Your task to perform on an android device: toggle data saver in the chrome app Image 0: 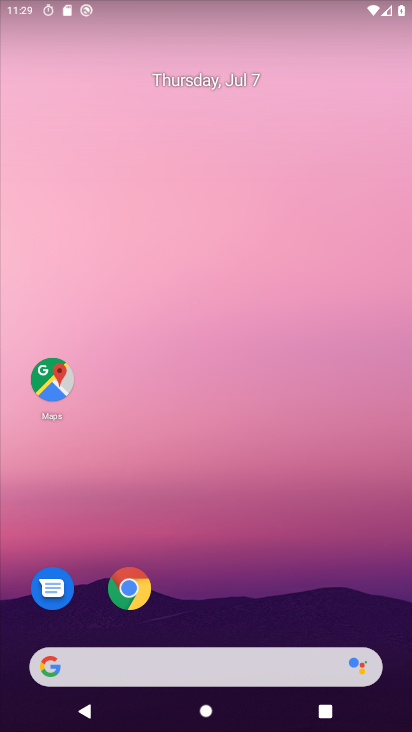
Step 0: click (128, 598)
Your task to perform on an android device: toggle data saver in the chrome app Image 1: 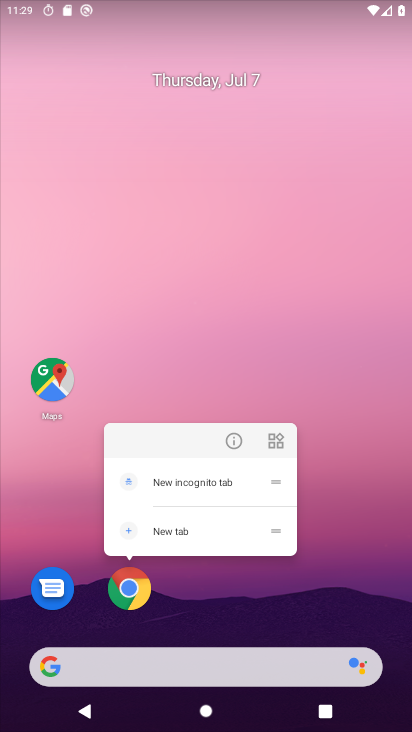
Step 1: click (133, 591)
Your task to perform on an android device: toggle data saver in the chrome app Image 2: 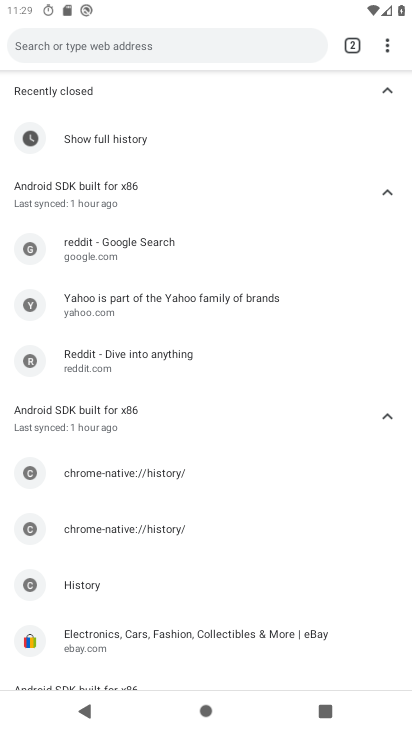
Step 2: drag from (386, 46) to (254, 385)
Your task to perform on an android device: toggle data saver in the chrome app Image 3: 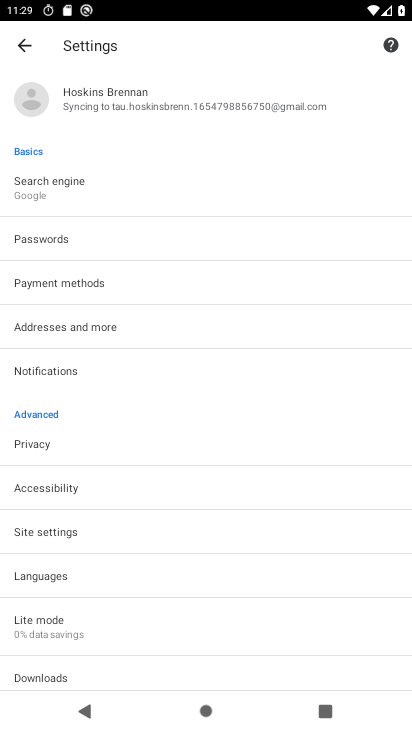
Step 3: click (34, 625)
Your task to perform on an android device: toggle data saver in the chrome app Image 4: 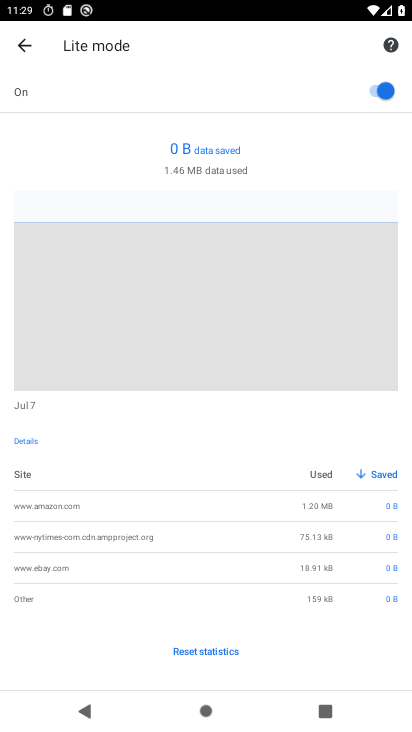
Step 4: click (376, 85)
Your task to perform on an android device: toggle data saver in the chrome app Image 5: 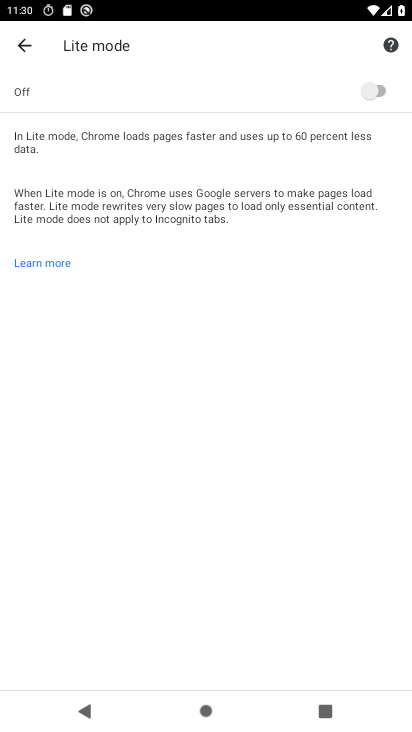
Step 5: task complete